Your task to perform on an android device: Google the capital of Mexico Image 0: 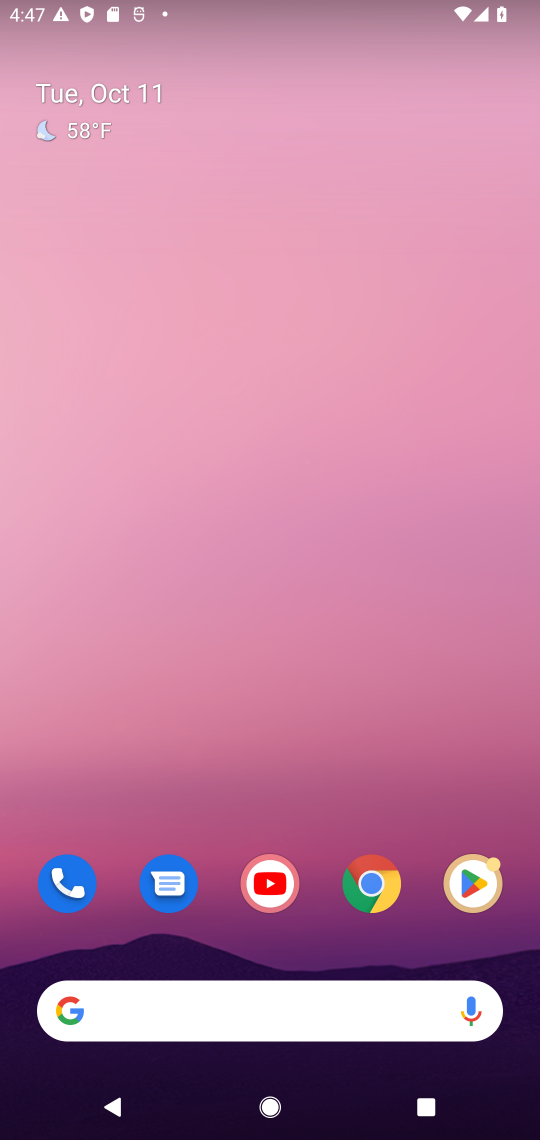
Step 0: drag from (350, 953) to (338, 57)
Your task to perform on an android device: Google the capital of Mexico Image 1: 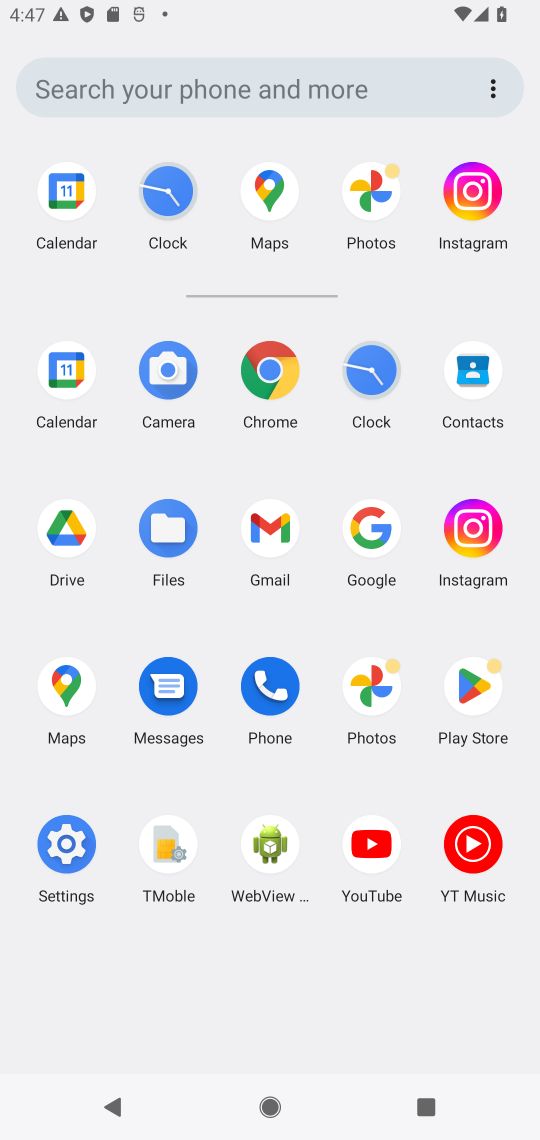
Step 1: click (374, 524)
Your task to perform on an android device: Google the capital of Mexico Image 2: 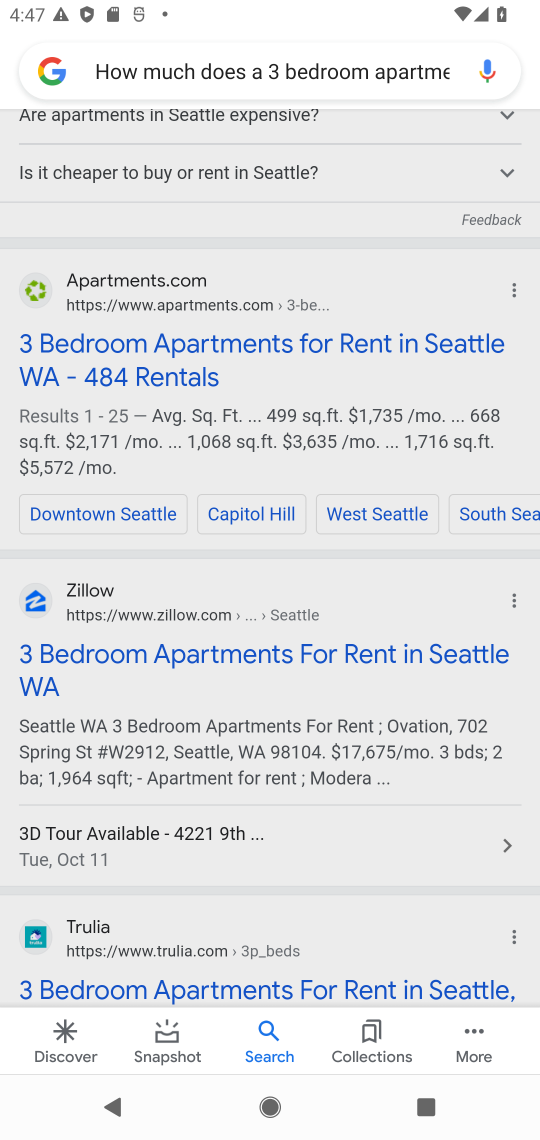
Step 2: click (282, 60)
Your task to perform on an android device: Google the capital of Mexico Image 3: 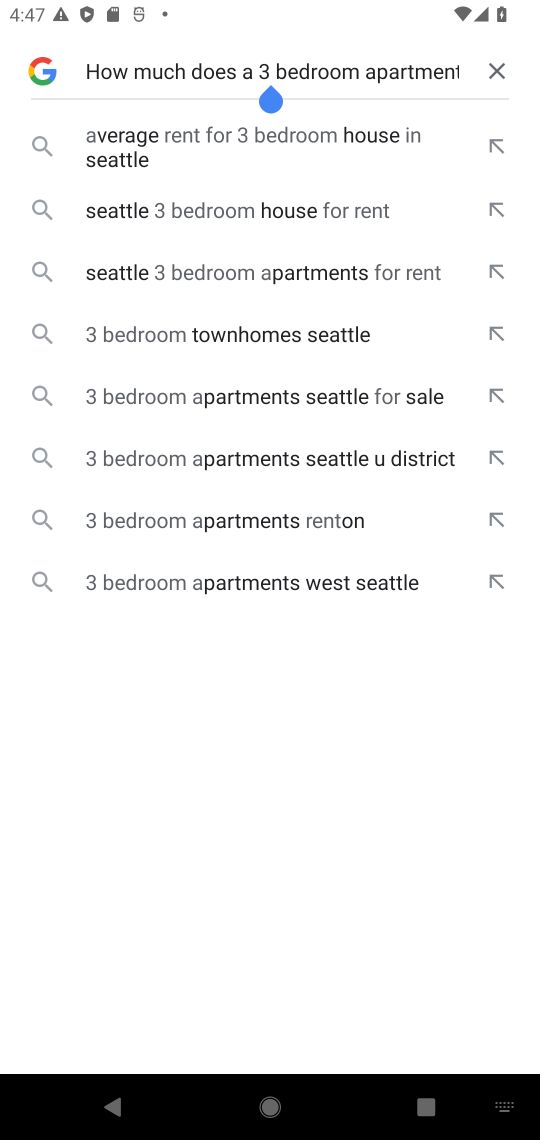
Step 3: click (518, 75)
Your task to perform on an android device: Google the capital of Mexico Image 4: 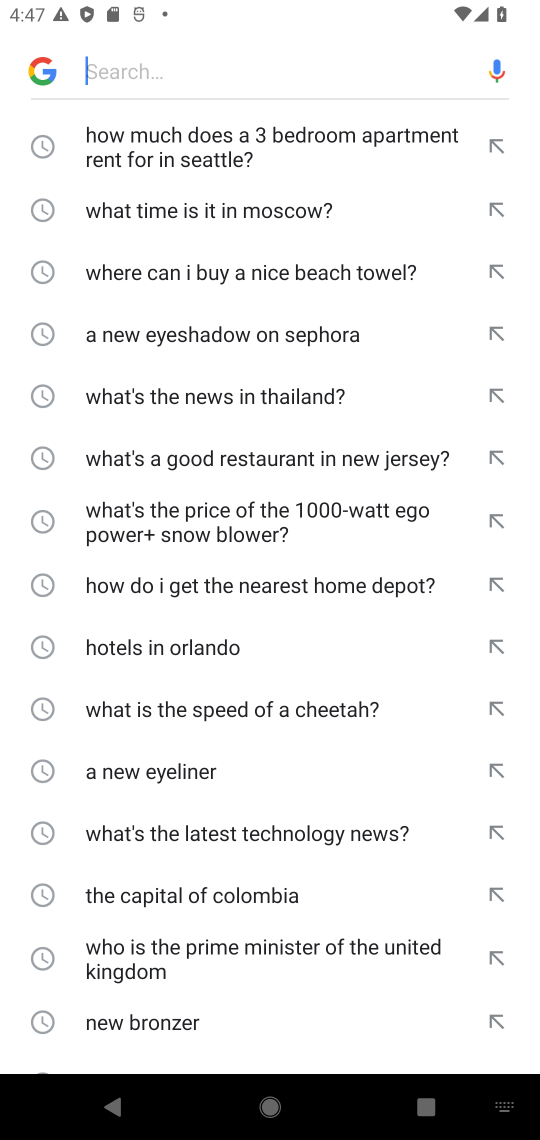
Step 4: type "the capital of Mexico"
Your task to perform on an android device: Google the capital of Mexico Image 5: 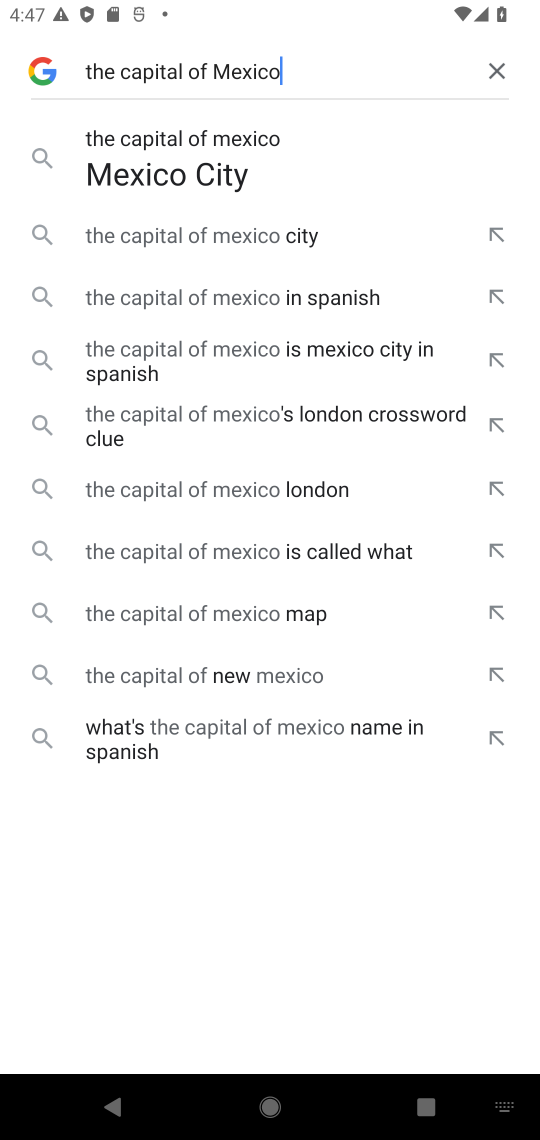
Step 5: press enter
Your task to perform on an android device: Google the capital of Mexico Image 6: 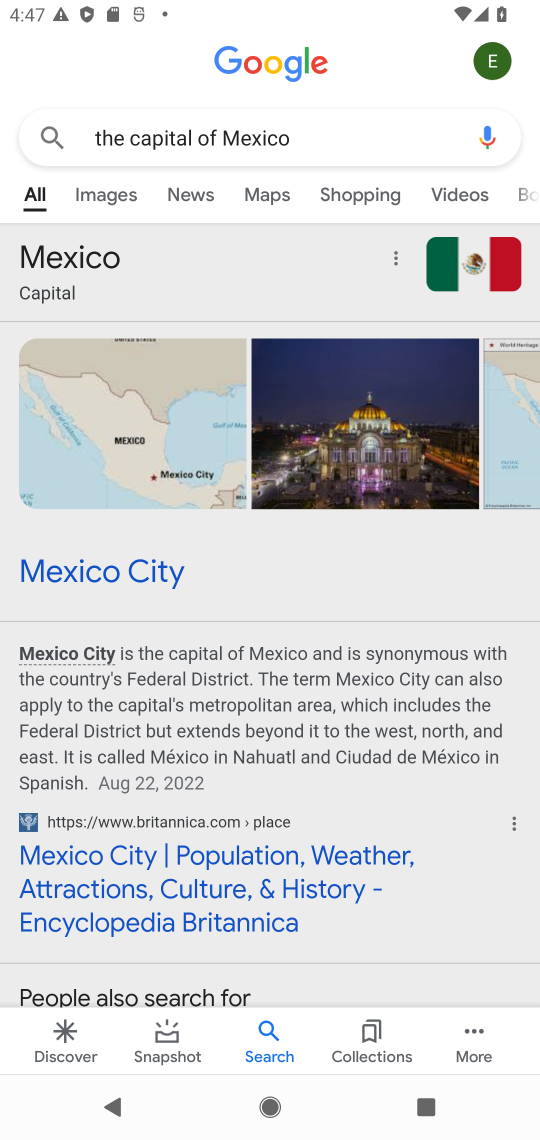
Step 6: task complete